Your task to perform on an android device: Open sound settings Image 0: 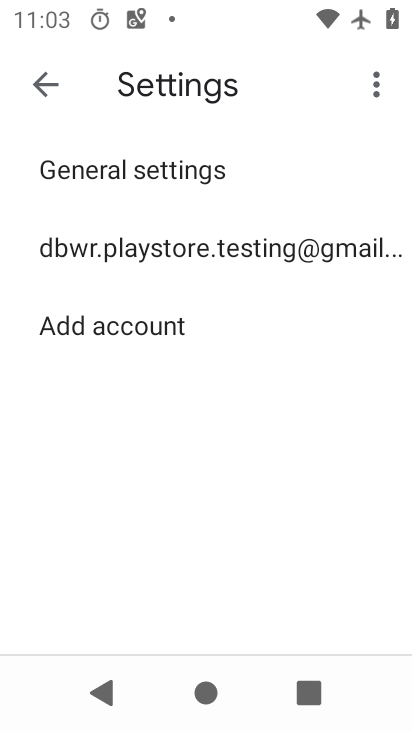
Step 0: press home button
Your task to perform on an android device: Open sound settings Image 1: 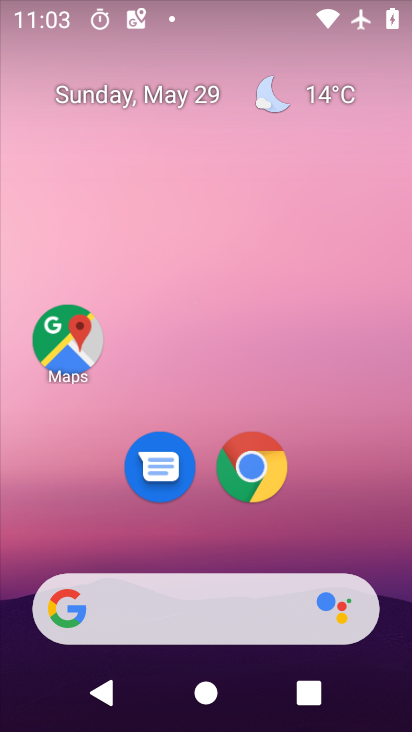
Step 1: drag from (219, 537) to (210, 141)
Your task to perform on an android device: Open sound settings Image 2: 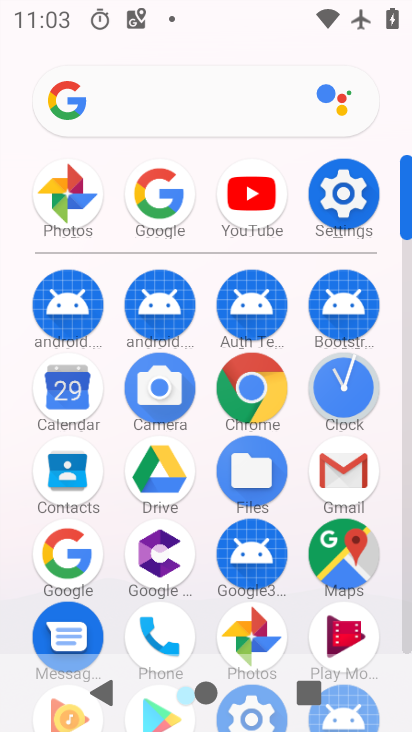
Step 2: click (339, 202)
Your task to perform on an android device: Open sound settings Image 3: 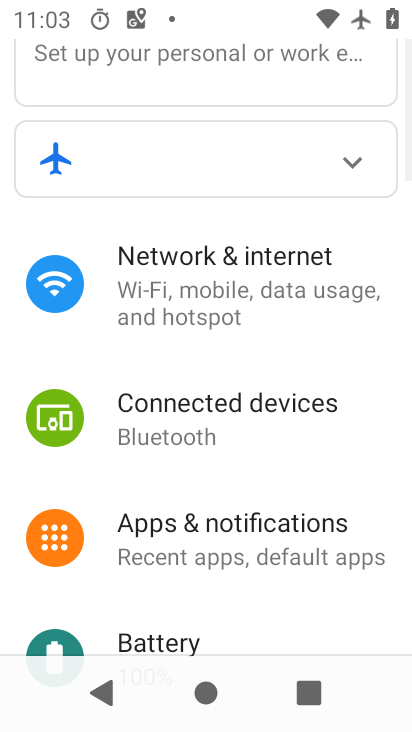
Step 3: drag from (213, 554) to (211, 245)
Your task to perform on an android device: Open sound settings Image 4: 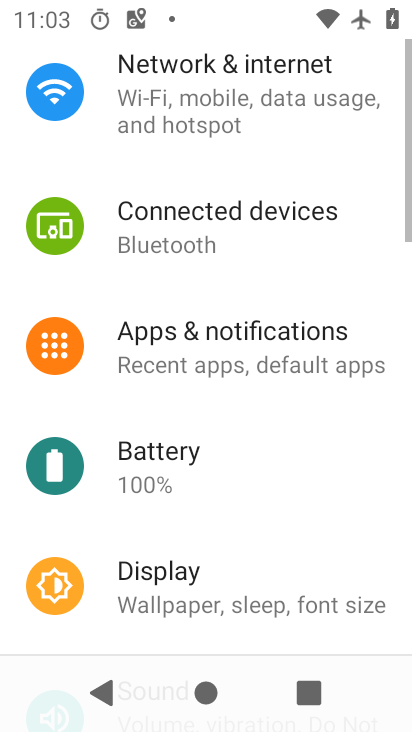
Step 4: drag from (204, 517) to (204, 252)
Your task to perform on an android device: Open sound settings Image 5: 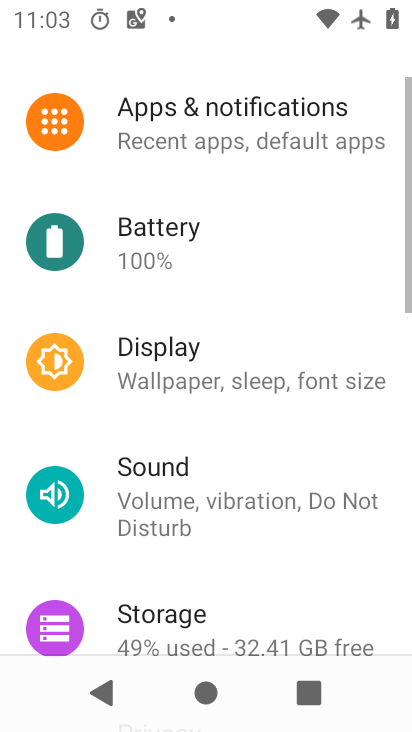
Step 5: drag from (211, 496) to (222, 259)
Your task to perform on an android device: Open sound settings Image 6: 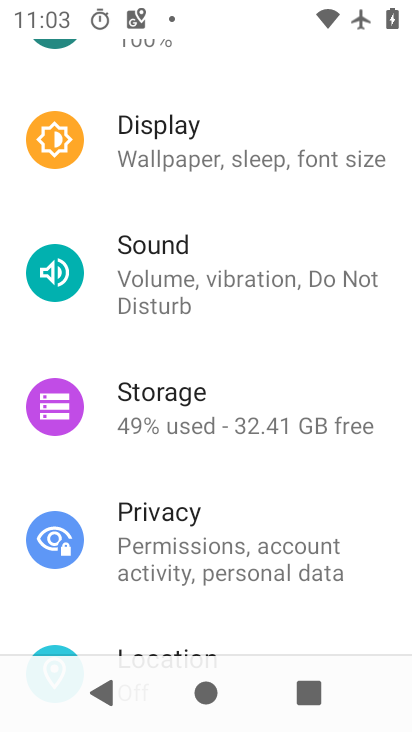
Step 6: click (214, 301)
Your task to perform on an android device: Open sound settings Image 7: 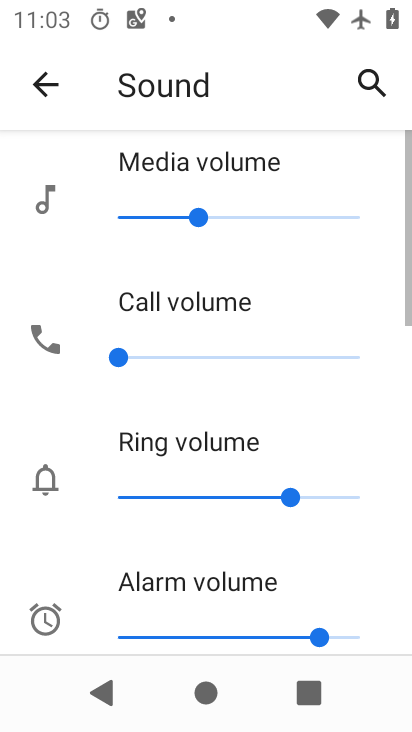
Step 7: task complete